Your task to perform on an android device: Is it going to rain today? Image 0: 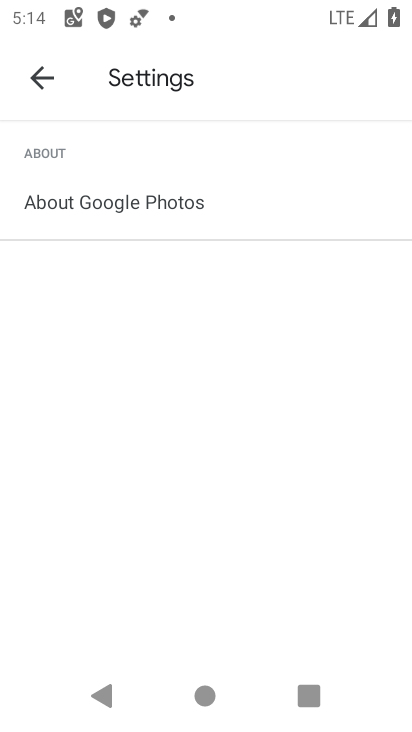
Step 0: press home button
Your task to perform on an android device: Is it going to rain today? Image 1: 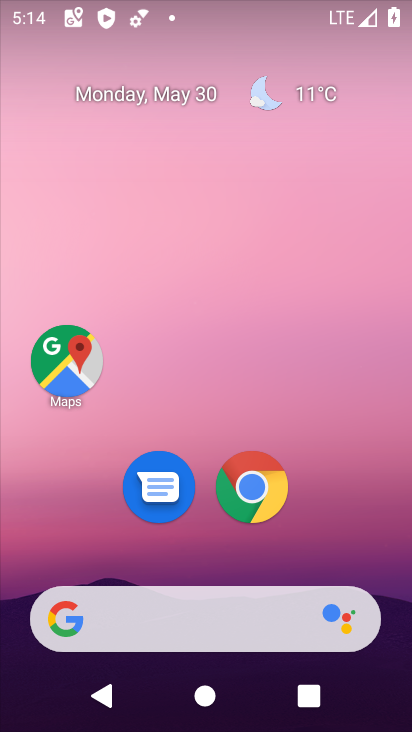
Step 1: click (306, 91)
Your task to perform on an android device: Is it going to rain today? Image 2: 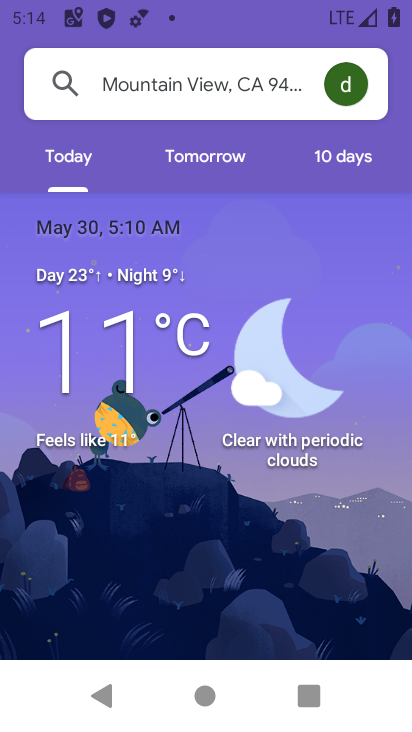
Step 2: task complete